Your task to perform on an android device: change keyboard looks Image 0: 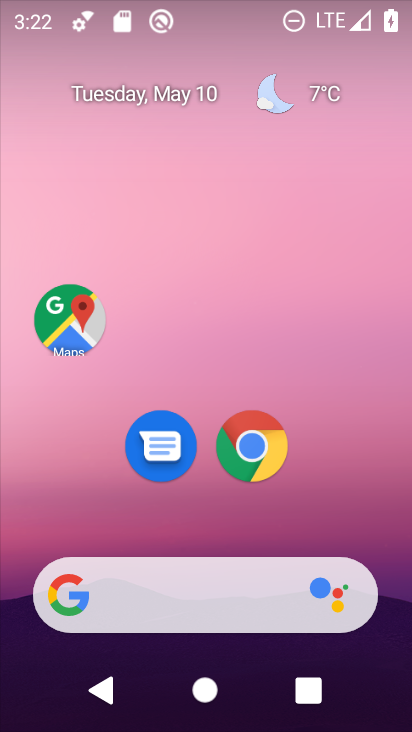
Step 0: drag from (323, 518) to (260, 139)
Your task to perform on an android device: change keyboard looks Image 1: 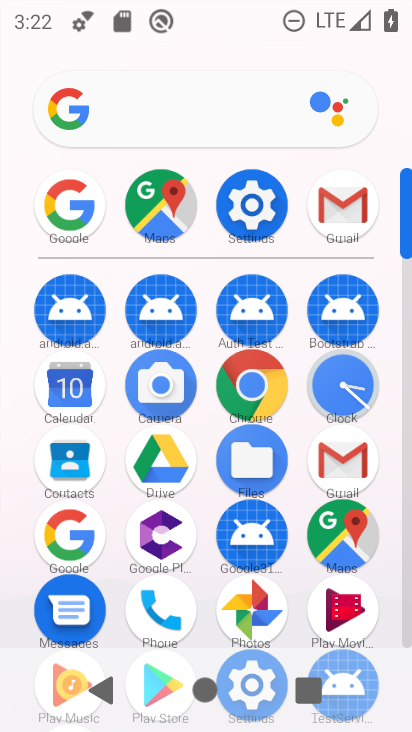
Step 1: click (256, 204)
Your task to perform on an android device: change keyboard looks Image 2: 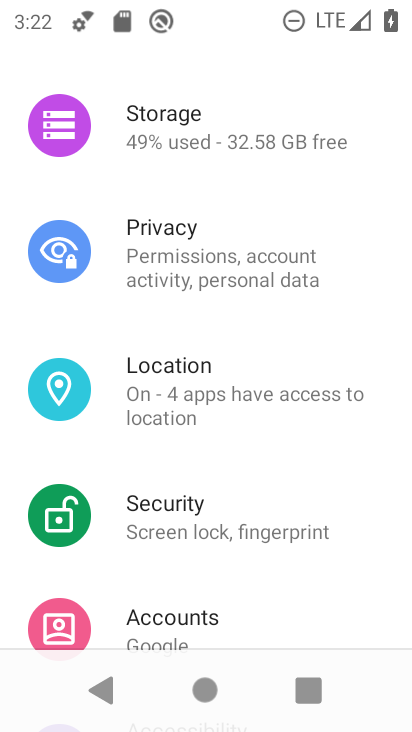
Step 2: drag from (259, 528) to (255, 21)
Your task to perform on an android device: change keyboard looks Image 3: 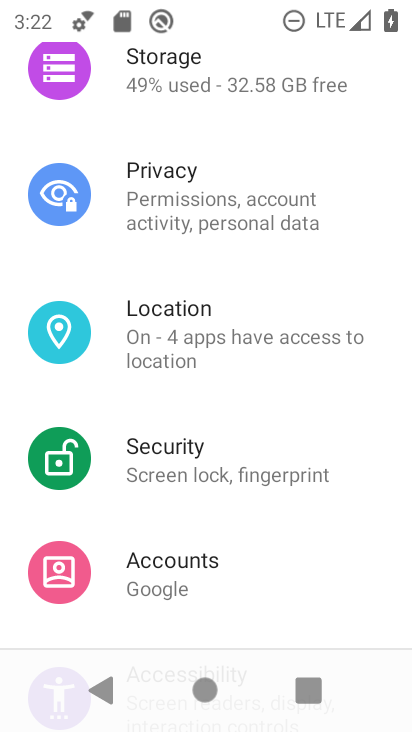
Step 3: drag from (252, 527) to (253, 44)
Your task to perform on an android device: change keyboard looks Image 4: 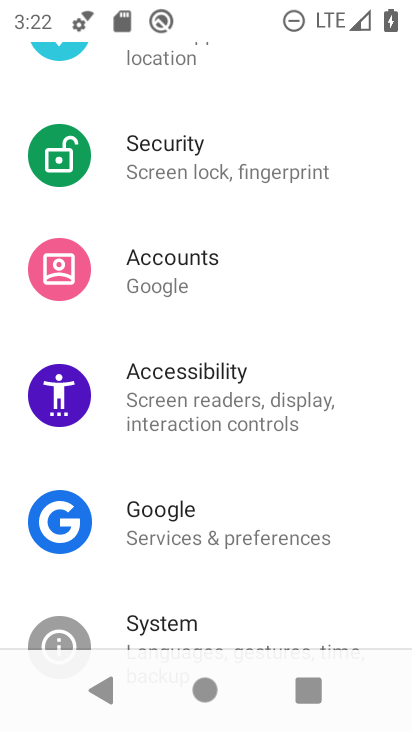
Step 4: drag from (231, 562) to (240, 196)
Your task to perform on an android device: change keyboard looks Image 5: 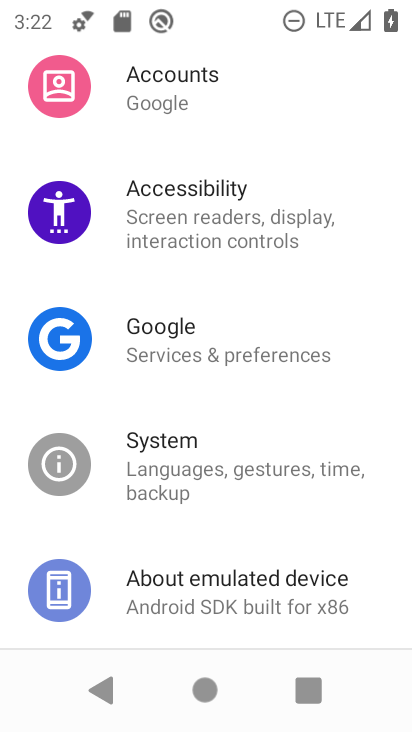
Step 5: click (226, 479)
Your task to perform on an android device: change keyboard looks Image 6: 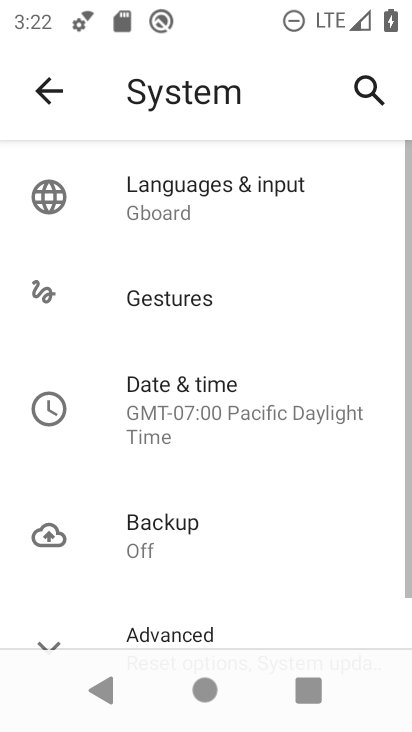
Step 6: click (154, 192)
Your task to perform on an android device: change keyboard looks Image 7: 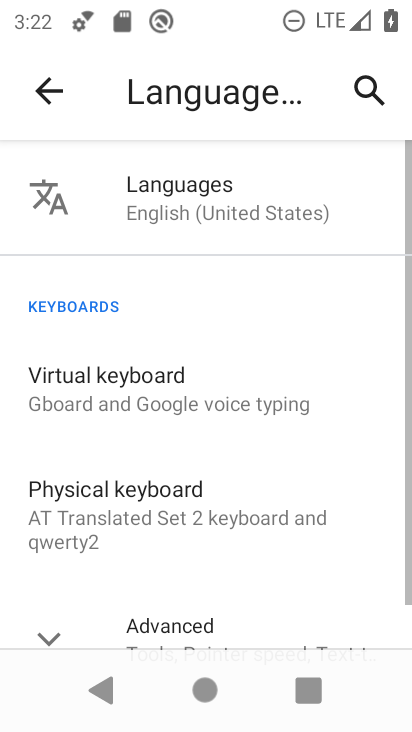
Step 7: click (153, 373)
Your task to perform on an android device: change keyboard looks Image 8: 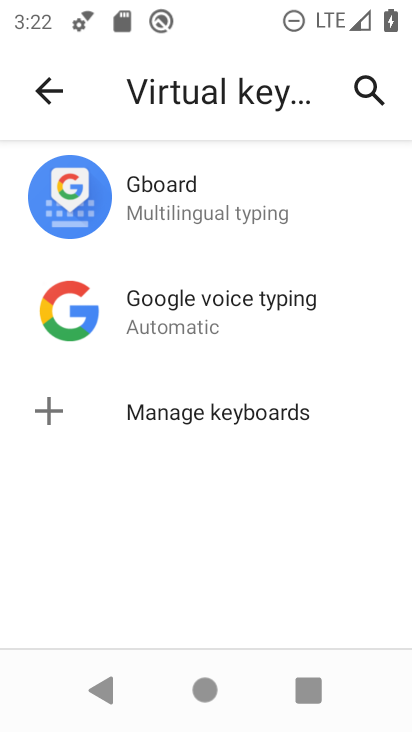
Step 8: click (160, 180)
Your task to perform on an android device: change keyboard looks Image 9: 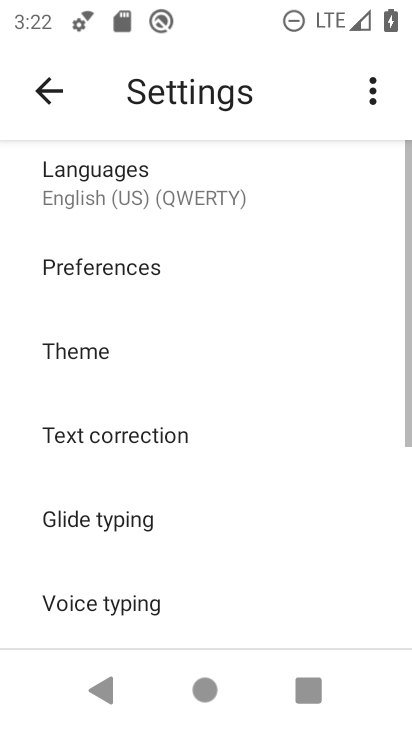
Step 9: click (150, 360)
Your task to perform on an android device: change keyboard looks Image 10: 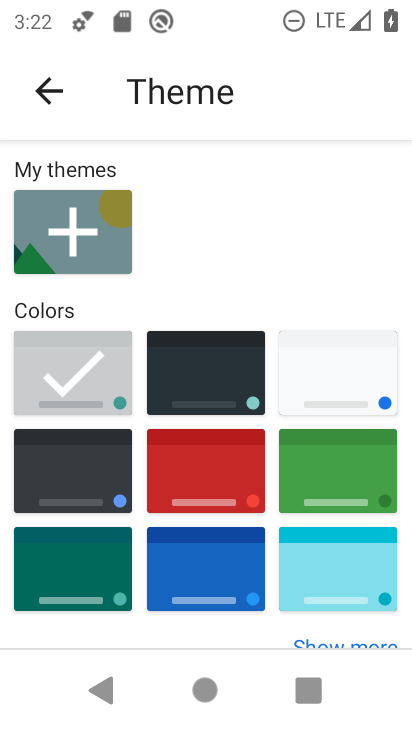
Step 10: click (217, 523)
Your task to perform on an android device: change keyboard looks Image 11: 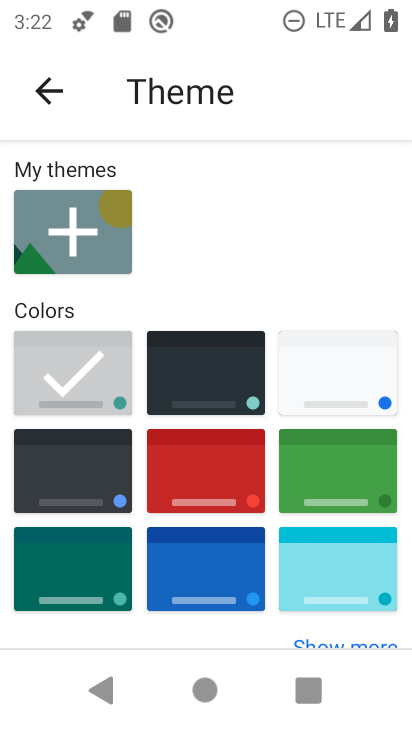
Step 11: click (221, 461)
Your task to perform on an android device: change keyboard looks Image 12: 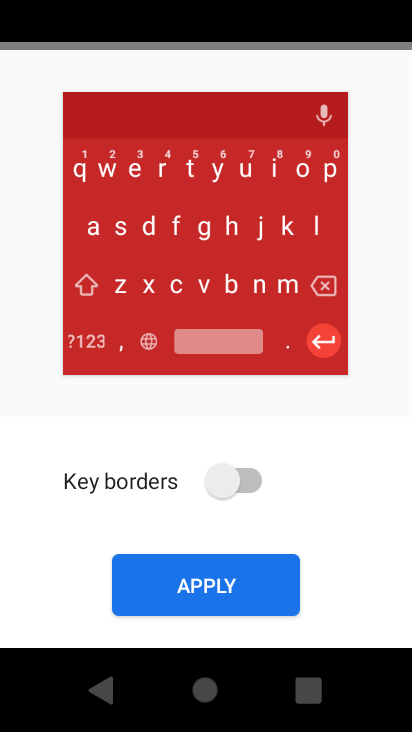
Step 12: click (227, 581)
Your task to perform on an android device: change keyboard looks Image 13: 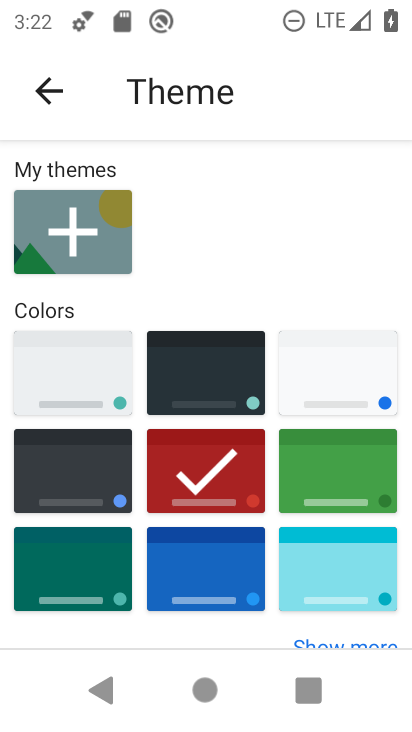
Step 13: task complete